Your task to perform on an android device: Search for hotels in London Image 0: 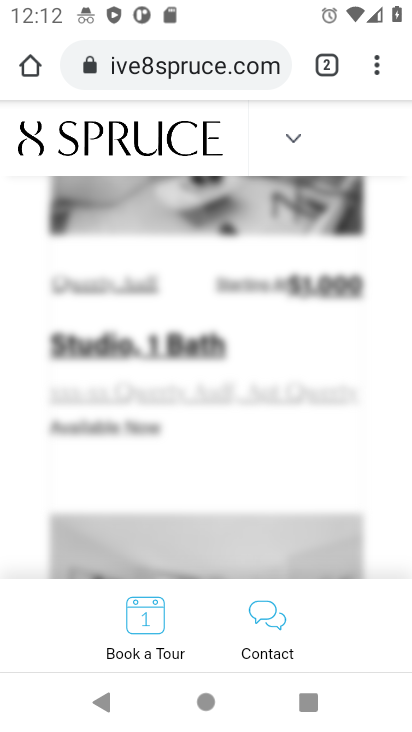
Step 0: press home button
Your task to perform on an android device: Search for hotels in London Image 1: 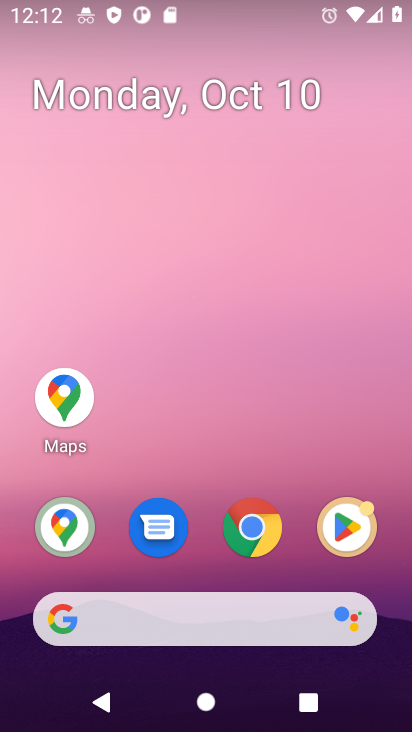
Step 1: click (73, 418)
Your task to perform on an android device: Search for hotels in London Image 2: 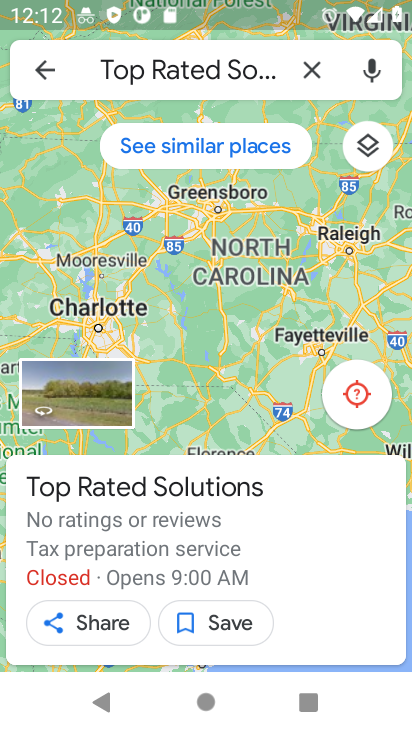
Step 2: click (224, 83)
Your task to perform on an android device: Search for hotels in London Image 3: 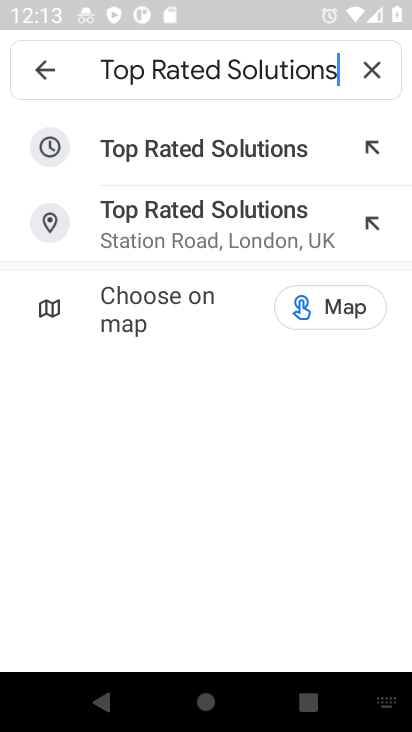
Step 3: click (371, 69)
Your task to perform on an android device: Search for hotels in London Image 4: 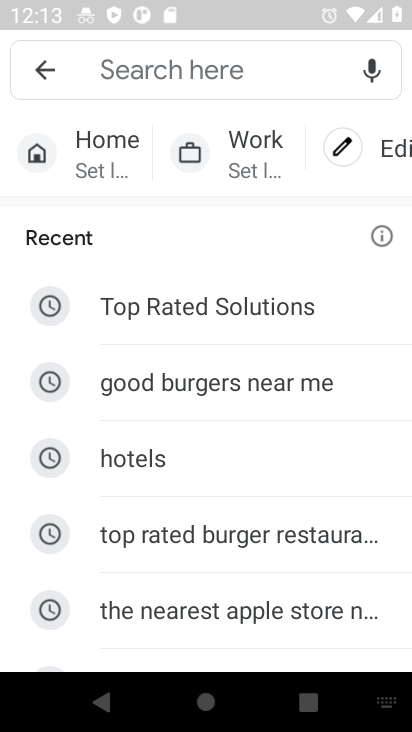
Step 4: type "hotels in london"
Your task to perform on an android device: Search for hotels in London Image 5: 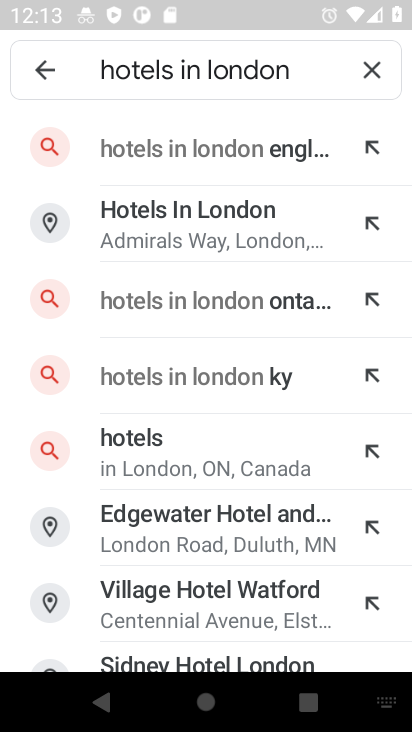
Step 5: click (146, 202)
Your task to perform on an android device: Search for hotels in London Image 6: 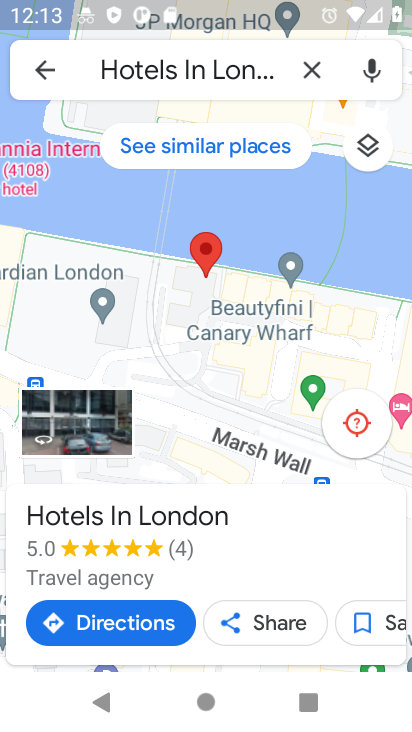
Step 6: task complete